Your task to perform on an android device: delete the emails in spam in the gmail app Image 0: 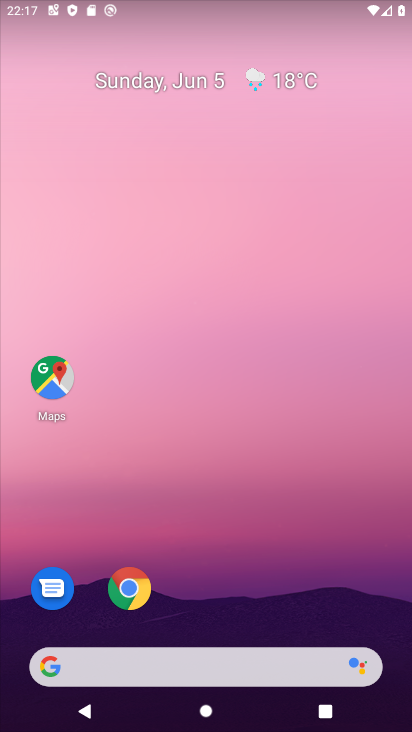
Step 0: drag from (377, 612) to (407, 334)
Your task to perform on an android device: delete the emails in spam in the gmail app Image 1: 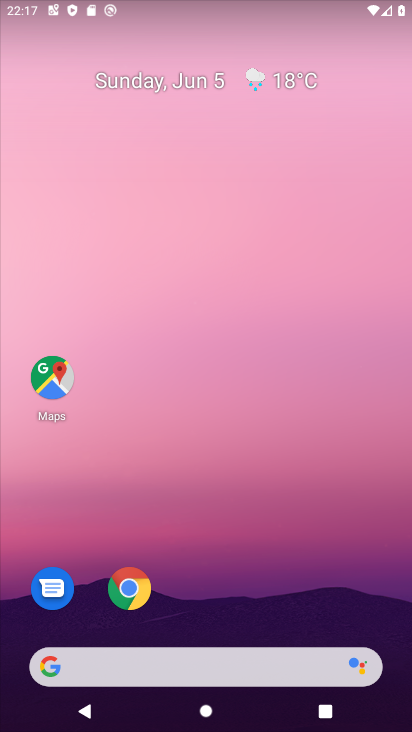
Step 1: drag from (344, 560) to (333, 162)
Your task to perform on an android device: delete the emails in spam in the gmail app Image 2: 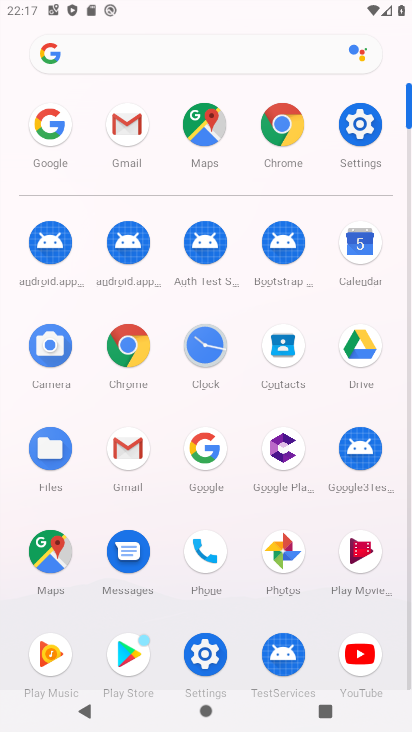
Step 2: click (146, 450)
Your task to perform on an android device: delete the emails in spam in the gmail app Image 3: 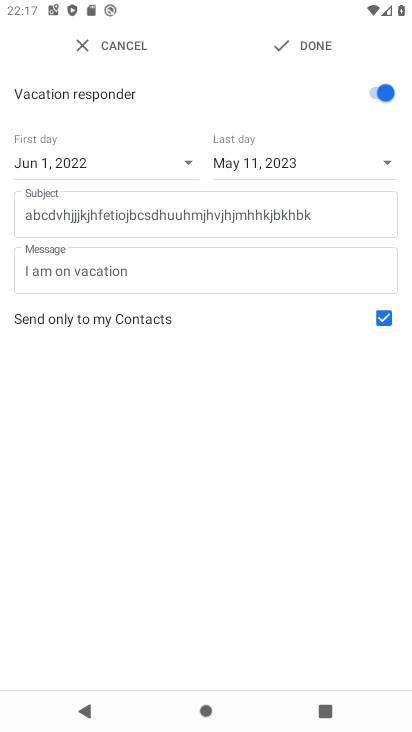
Step 3: press home button
Your task to perform on an android device: delete the emails in spam in the gmail app Image 4: 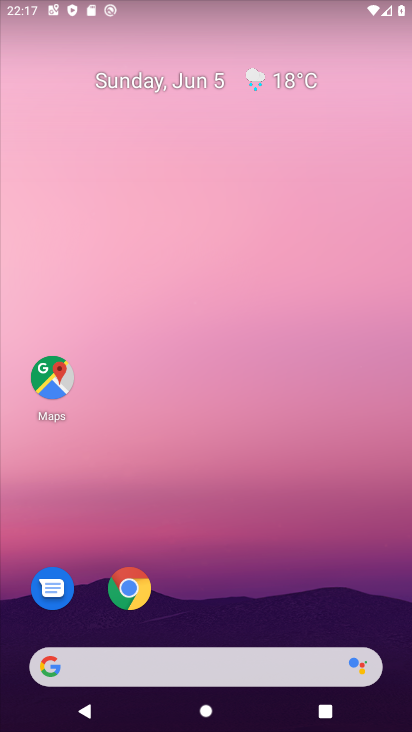
Step 4: drag from (360, 580) to (372, 134)
Your task to perform on an android device: delete the emails in spam in the gmail app Image 5: 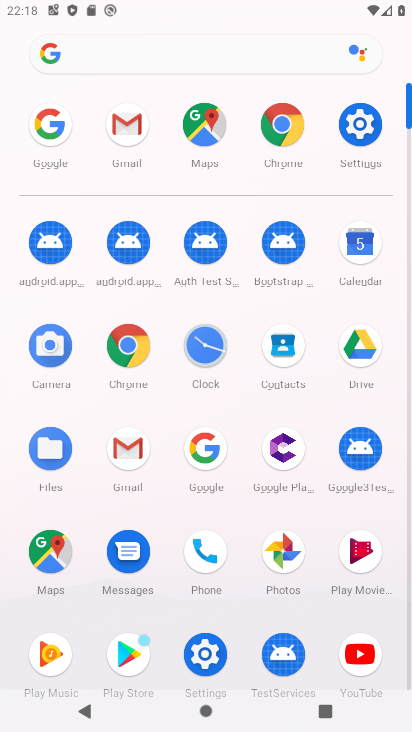
Step 5: click (125, 462)
Your task to perform on an android device: delete the emails in spam in the gmail app Image 6: 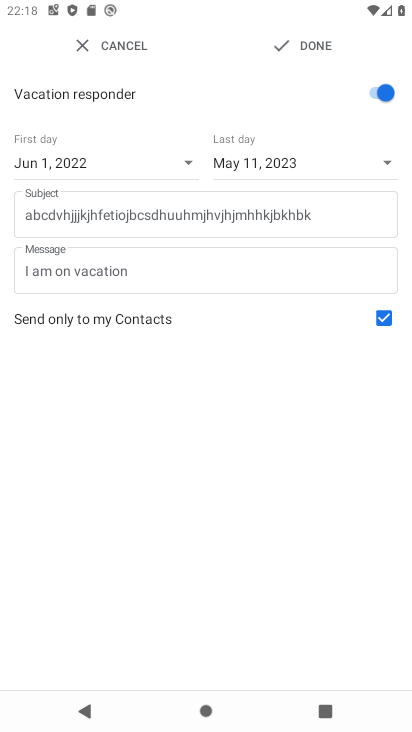
Step 6: task complete